Your task to perform on an android device: turn off priority inbox in the gmail app Image 0: 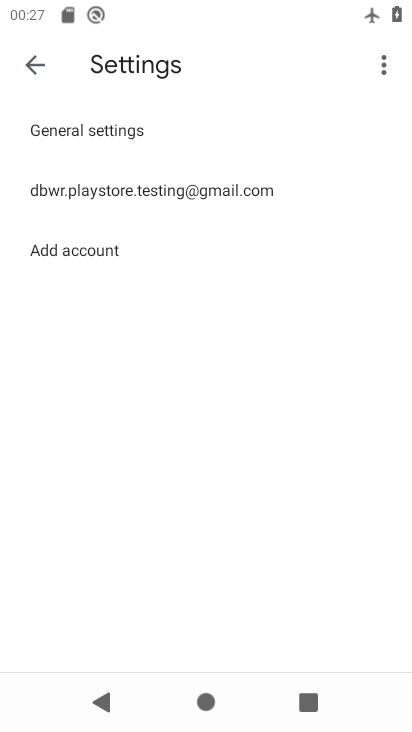
Step 0: press back button
Your task to perform on an android device: turn off priority inbox in the gmail app Image 1: 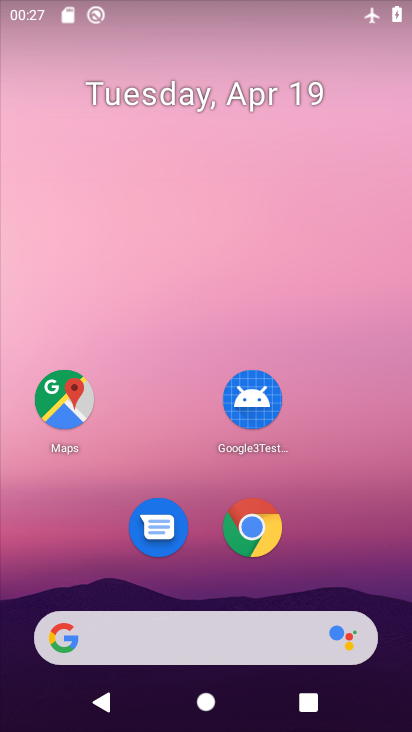
Step 1: drag from (341, 542) to (352, 49)
Your task to perform on an android device: turn off priority inbox in the gmail app Image 2: 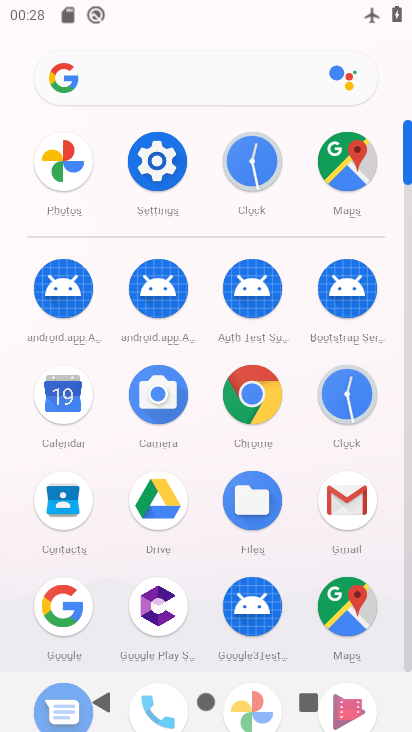
Step 2: click (352, 502)
Your task to perform on an android device: turn off priority inbox in the gmail app Image 3: 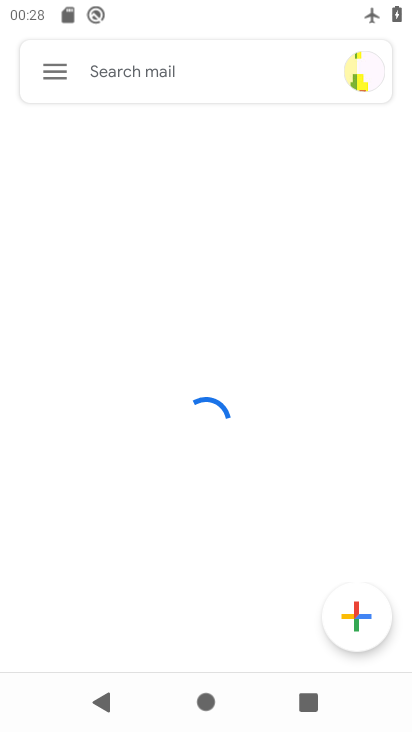
Step 3: click (65, 69)
Your task to perform on an android device: turn off priority inbox in the gmail app Image 4: 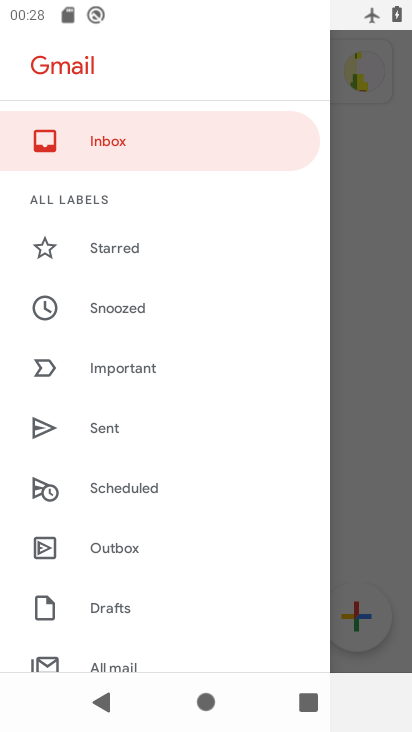
Step 4: drag from (94, 494) to (193, 289)
Your task to perform on an android device: turn off priority inbox in the gmail app Image 5: 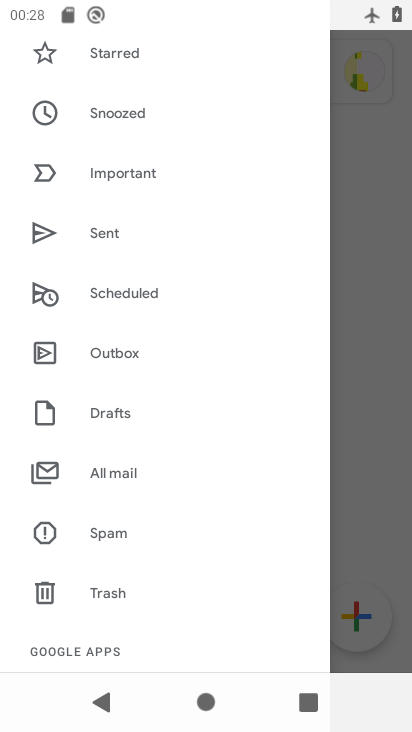
Step 5: drag from (205, 349) to (272, 235)
Your task to perform on an android device: turn off priority inbox in the gmail app Image 6: 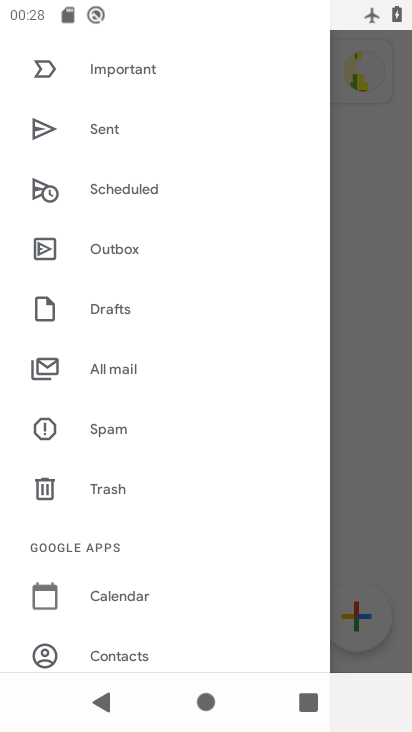
Step 6: drag from (175, 507) to (179, 294)
Your task to perform on an android device: turn off priority inbox in the gmail app Image 7: 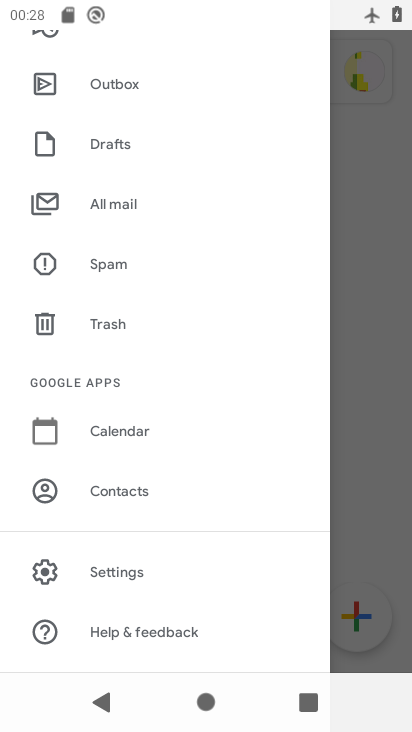
Step 7: click (177, 546)
Your task to perform on an android device: turn off priority inbox in the gmail app Image 8: 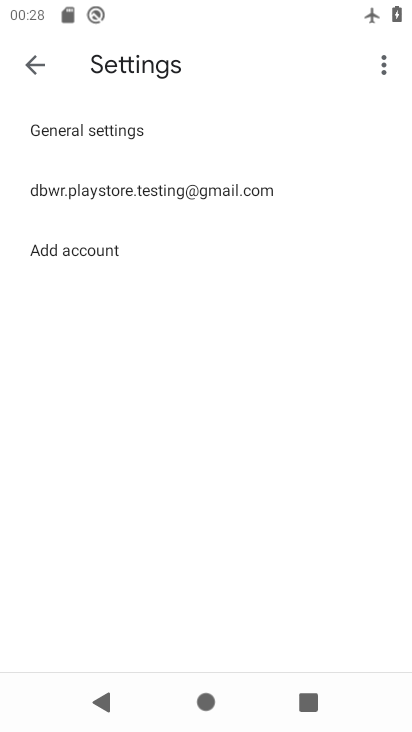
Step 8: click (182, 180)
Your task to perform on an android device: turn off priority inbox in the gmail app Image 9: 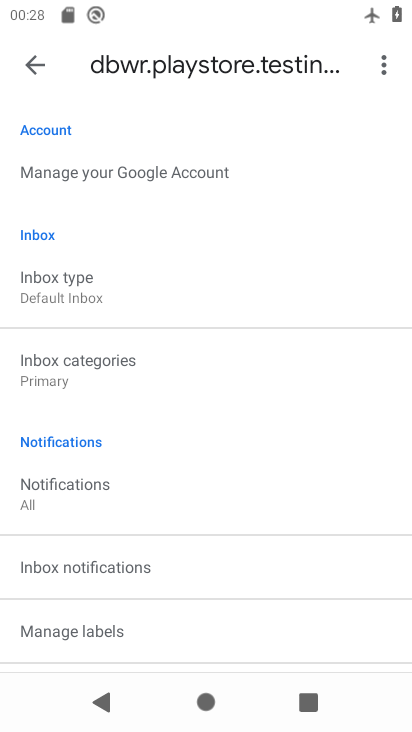
Step 9: click (74, 274)
Your task to perform on an android device: turn off priority inbox in the gmail app Image 10: 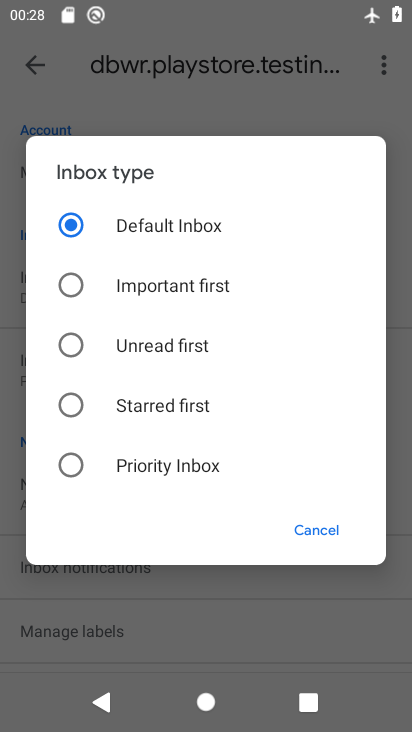
Step 10: click (262, 117)
Your task to perform on an android device: turn off priority inbox in the gmail app Image 11: 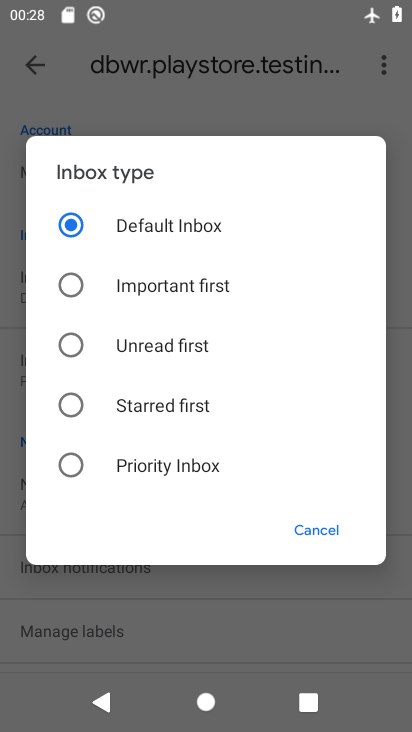
Step 11: task complete